Your task to perform on an android device: What is the recent news? Image 0: 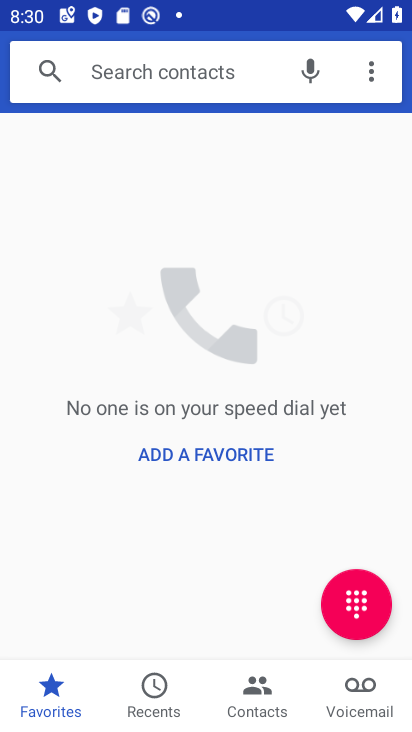
Step 0: press home button
Your task to perform on an android device: What is the recent news? Image 1: 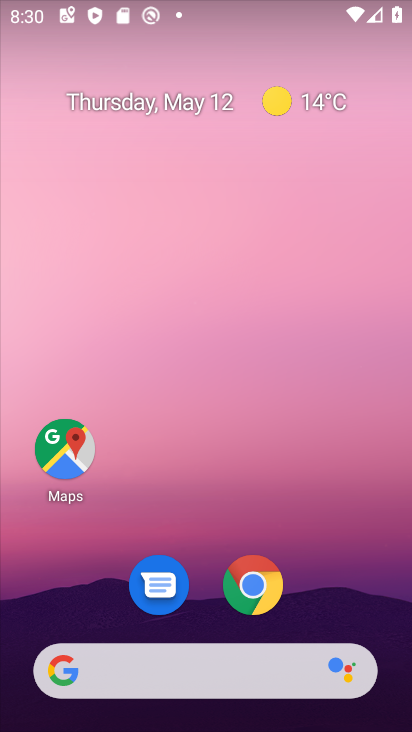
Step 1: click (128, 669)
Your task to perform on an android device: What is the recent news? Image 2: 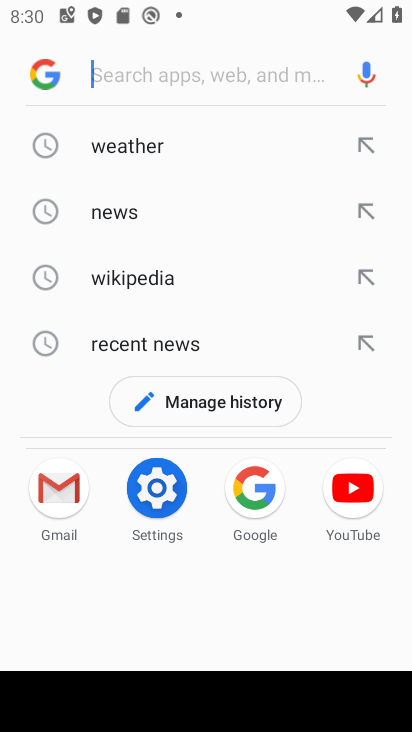
Step 2: click (95, 341)
Your task to perform on an android device: What is the recent news? Image 3: 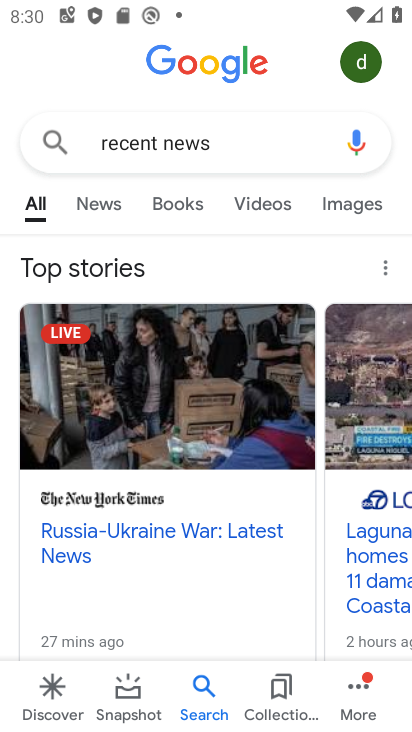
Step 3: click (95, 194)
Your task to perform on an android device: What is the recent news? Image 4: 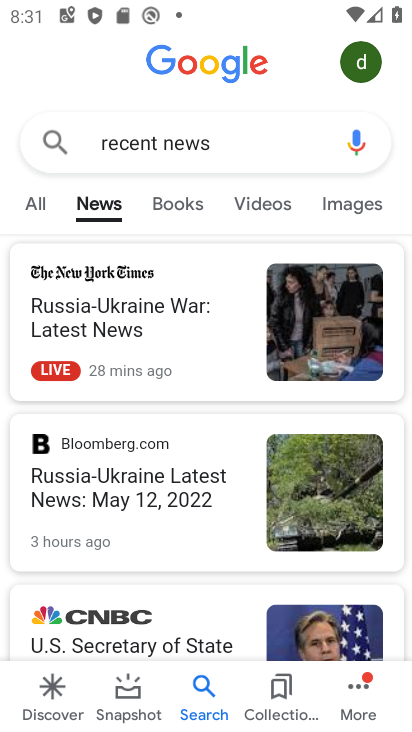
Step 4: task complete